Your task to perform on an android device: Open CNN.com Image 0: 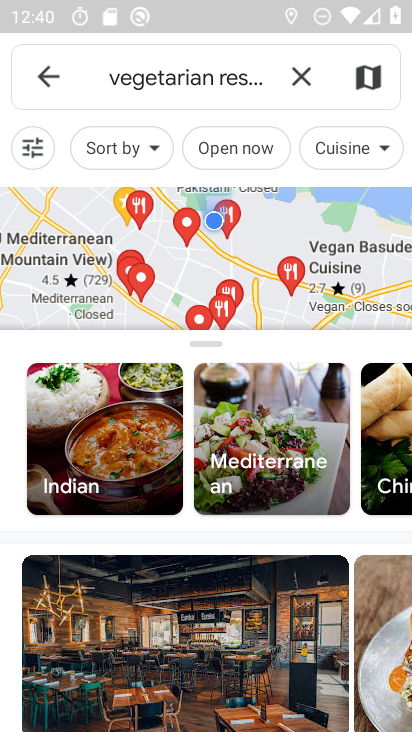
Step 0: press back button
Your task to perform on an android device: Open CNN.com Image 1: 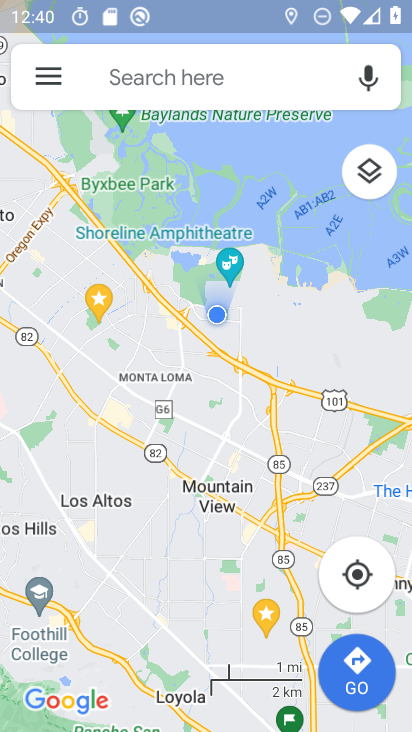
Step 1: press home button
Your task to perform on an android device: Open CNN.com Image 2: 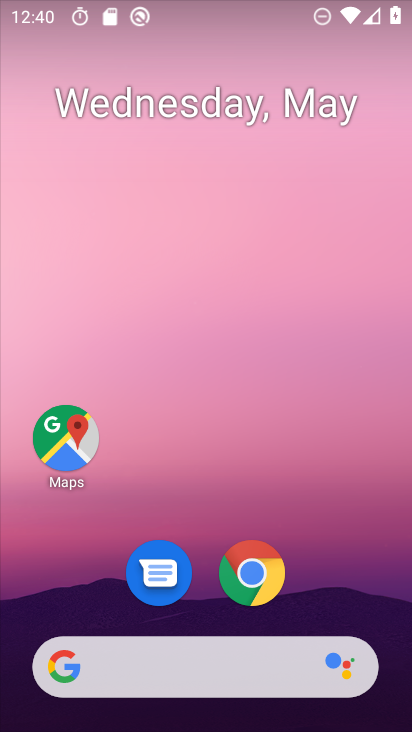
Step 2: drag from (327, 555) to (241, 32)
Your task to perform on an android device: Open CNN.com Image 3: 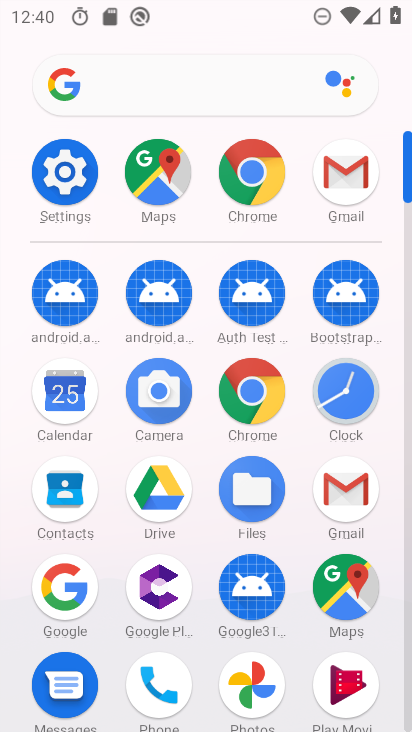
Step 3: click (250, 164)
Your task to perform on an android device: Open CNN.com Image 4: 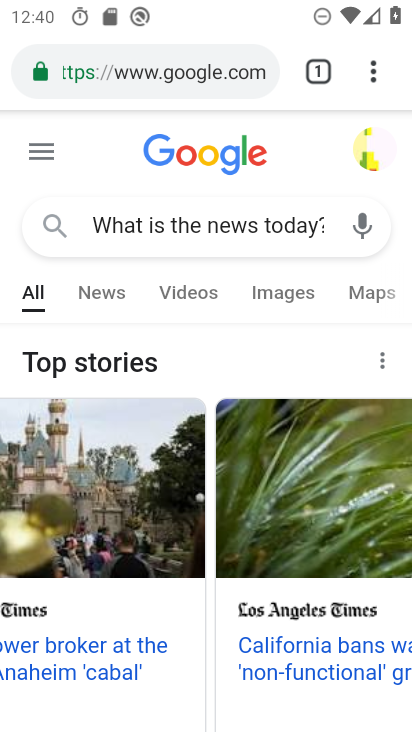
Step 4: click (159, 73)
Your task to perform on an android device: Open CNN.com Image 5: 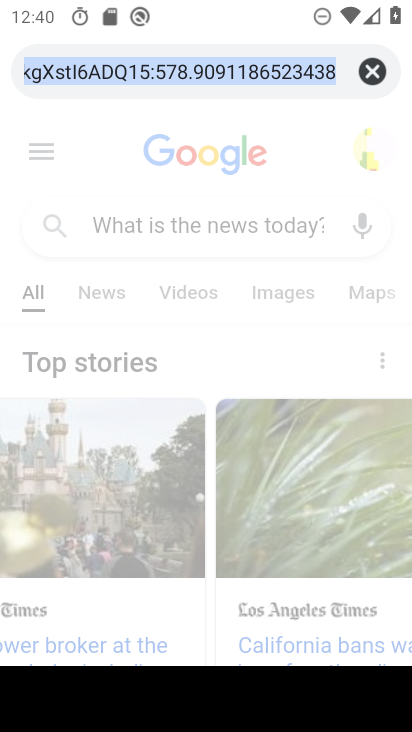
Step 5: click (365, 68)
Your task to perform on an android device: Open CNN.com Image 6: 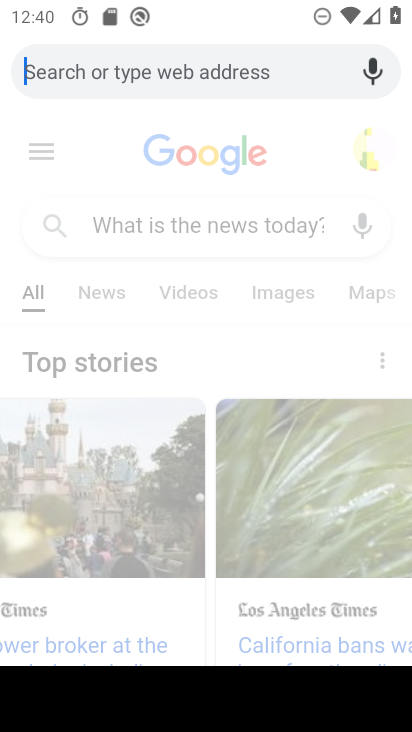
Step 6: type "CNN.com"
Your task to perform on an android device: Open CNN.com Image 7: 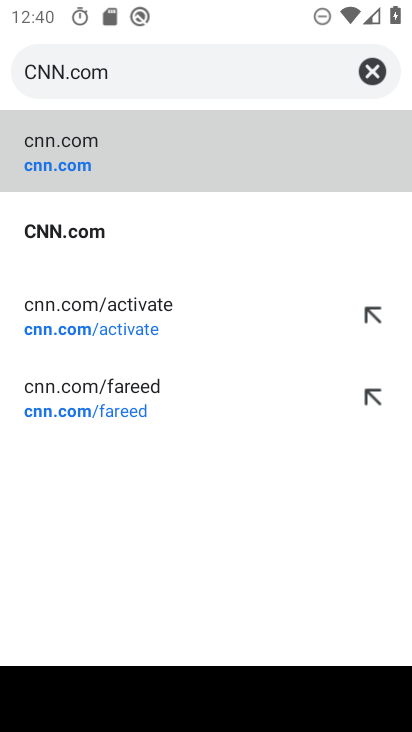
Step 7: click (113, 152)
Your task to perform on an android device: Open CNN.com Image 8: 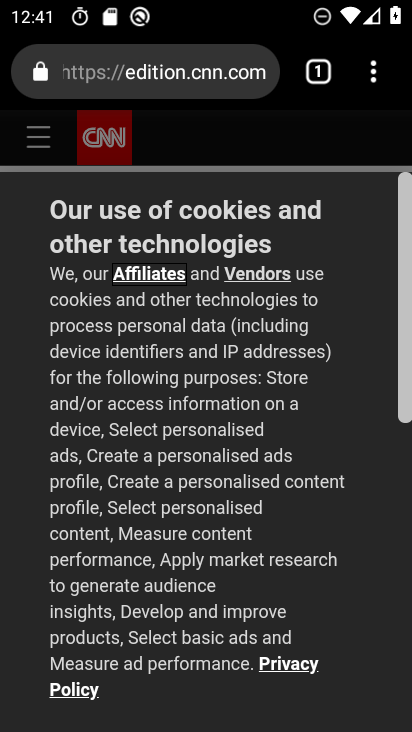
Step 8: task complete